Your task to perform on an android device: make emails show in primary in the gmail app Image 0: 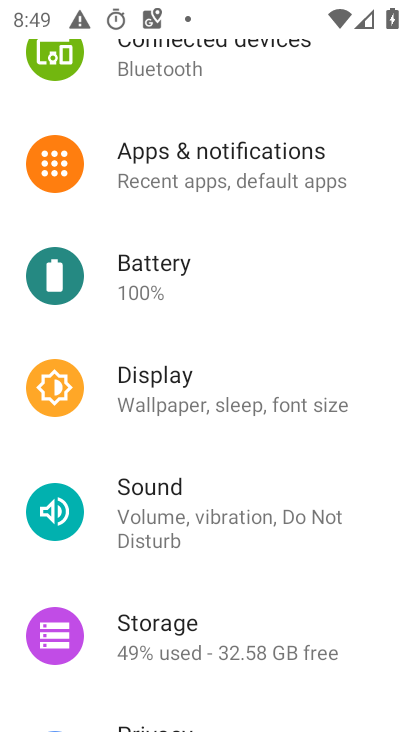
Step 0: press home button
Your task to perform on an android device: make emails show in primary in the gmail app Image 1: 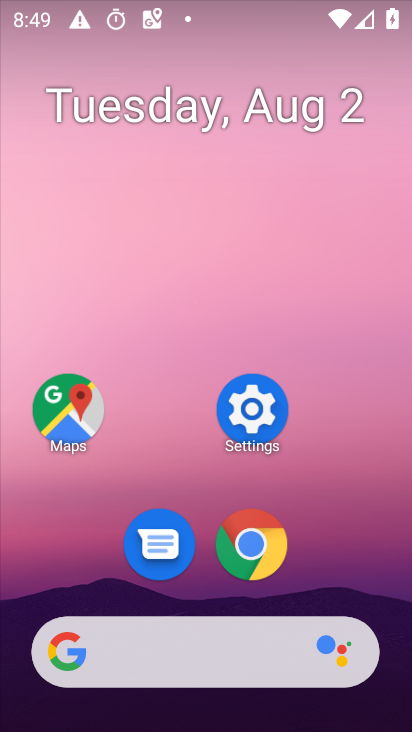
Step 1: drag from (206, 652) to (317, 85)
Your task to perform on an android device: make emails show in primary in the gmail app Image 2: 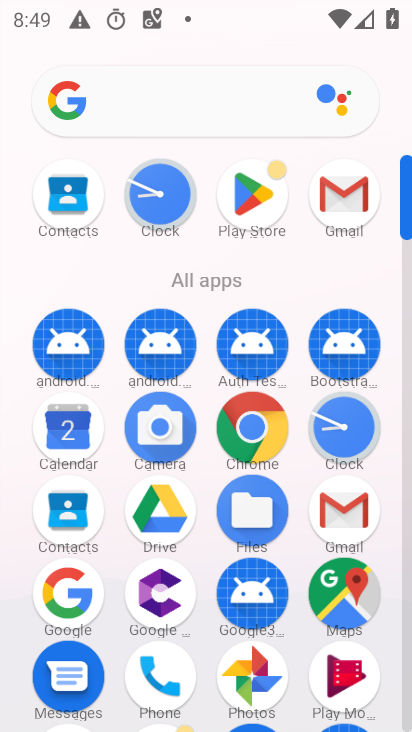
Step 2: click (346, 208)
Your task to perform on an android device: make emails show in primary in the gmail app Image 3: 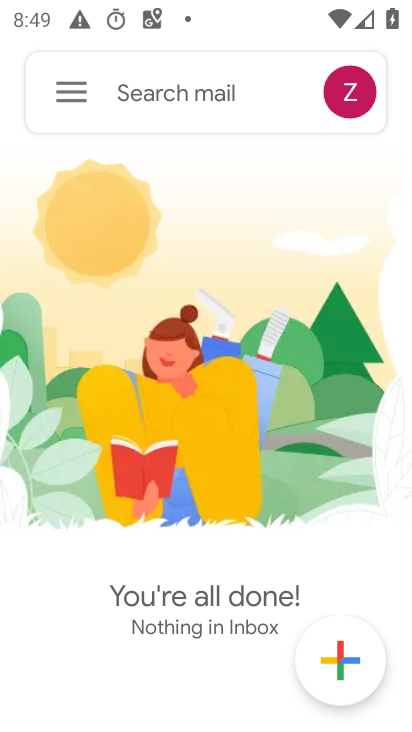
Step 3: click (72, 97)
Your task to perform on an android device: make emails show in primary in the gmail app Image 4: 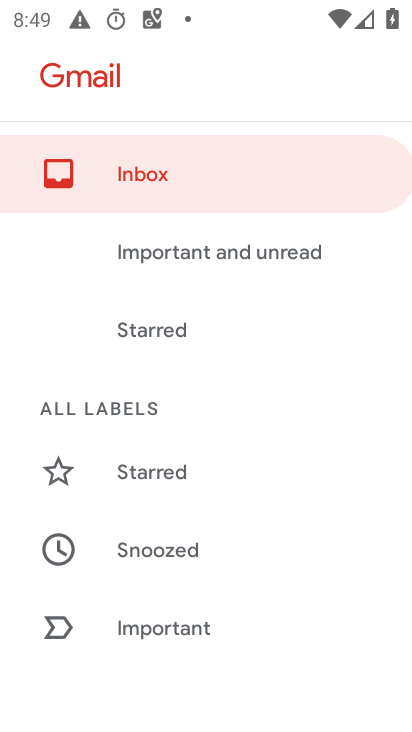
Step 4: drag from (217, 560) to (324, 126)
Your task to perform on an android device: make emails show in primary in the gmail app Image 5: 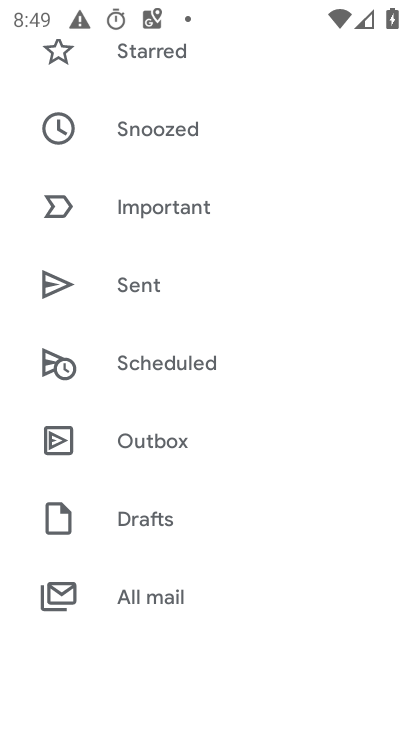
Step 5: drag from (219, 628) to (357, 62)
Your task to perform on an android device: make emails show in primary in the gmail app Image 6: 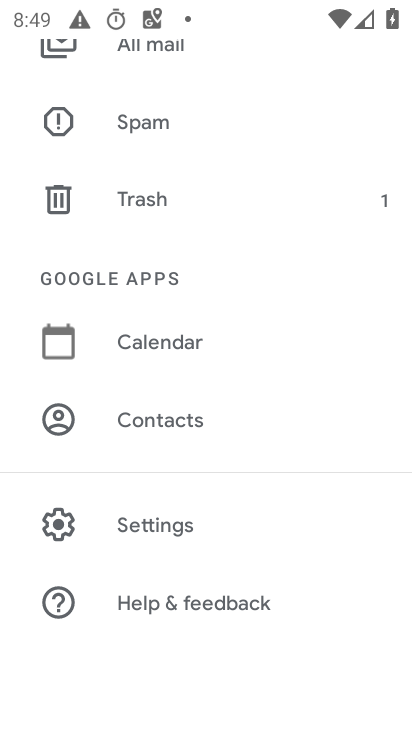
Step 6: click (154, 532)
Your task to perform on an android device: make emails show in primary in the gmail app Image 7: 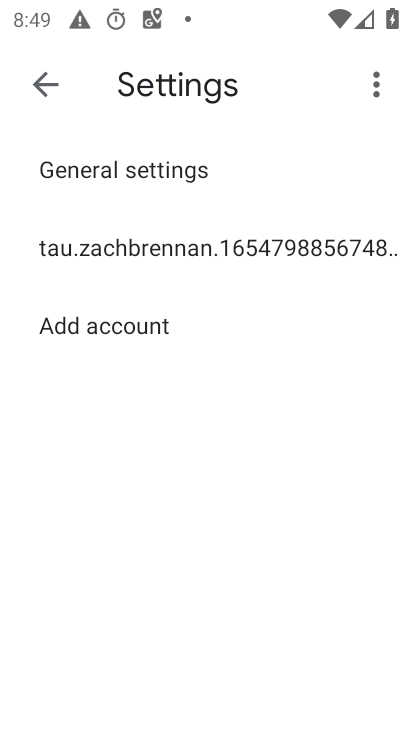
Step 7: click (196, 240)
Your task to perform on an android device: make emails show in primary in the gmail app Image 8: 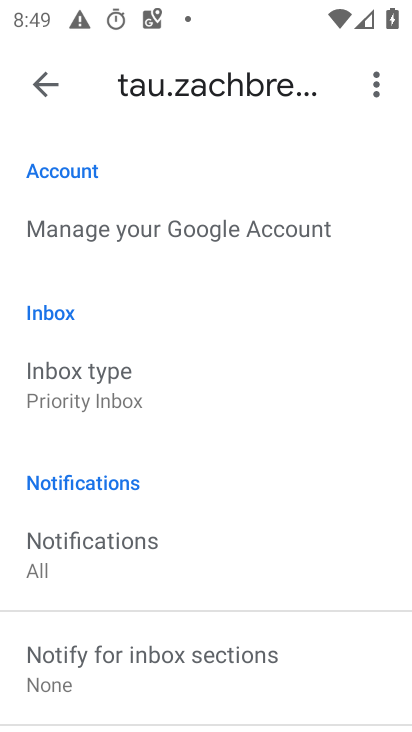
Step 8: task complete